Your task to perform on an android device: toggle pop-ups in chrome Image 0: 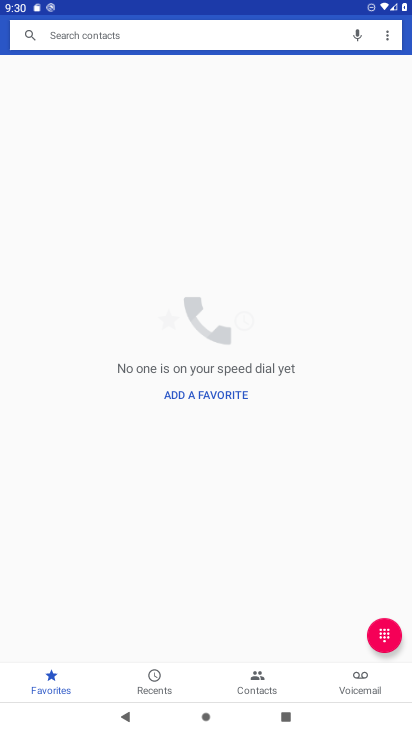
Step 0: press home button
Your task to perform on an android device: toggle pop-ups in chrome Image 1: 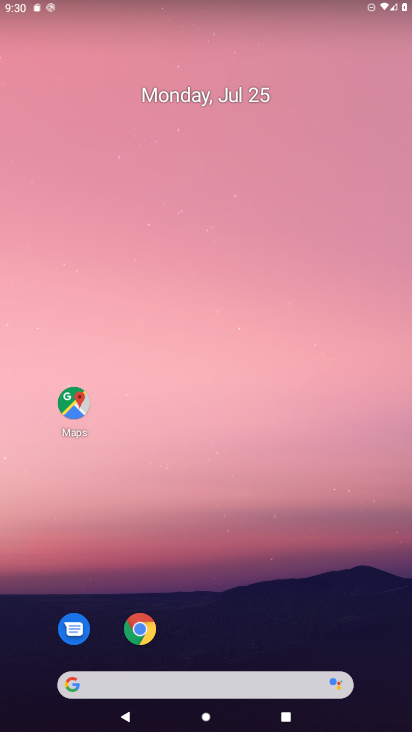
Step 1: click (145, 629)
Your task to perform on an android device: toggle pop-ups in chrome Image 2: 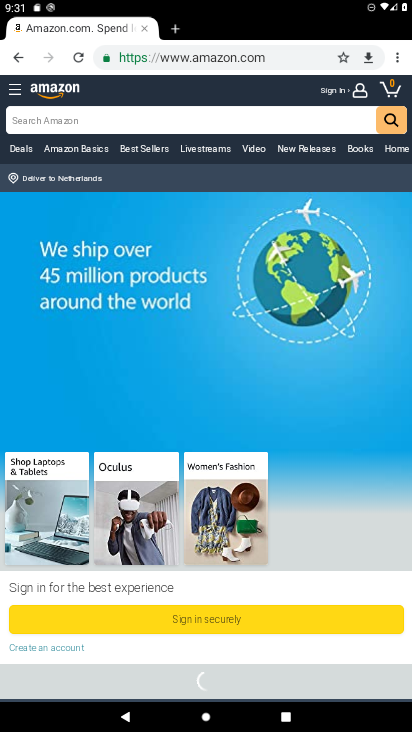
Step 2: drag from (400, 49) to (299, 387)
Your task to perform on an android device: toggle pop-ups in chrome Image 3: 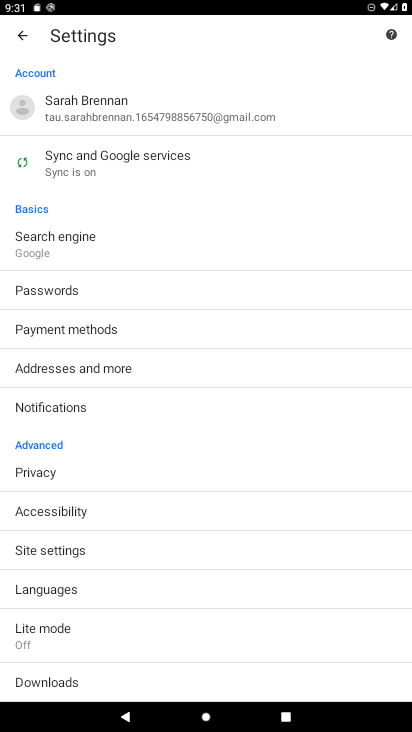
Step 3: click (39, 554)
Your task to perform on an android device: toggle pop-ups in chrome Image 4: 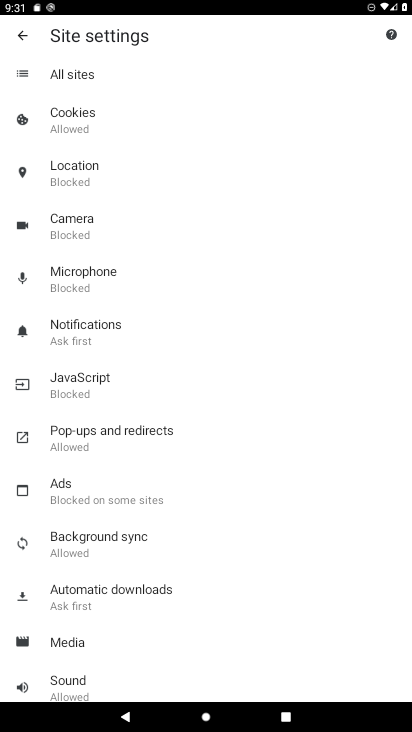
Step 4: click (67, 439)
Your task to perform on an android device: toggle pop-ups in chrome Image 5: 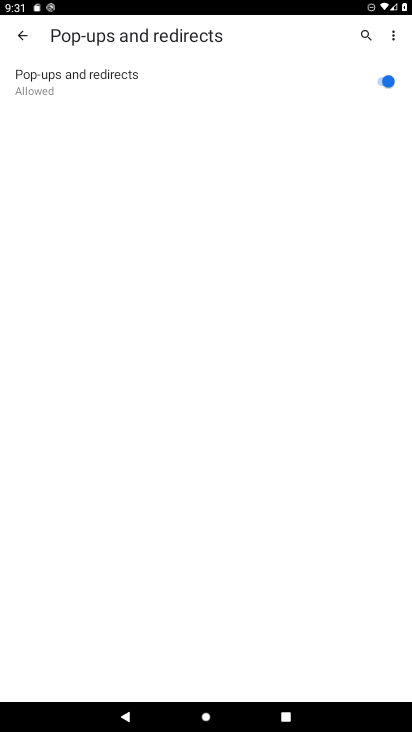
Step 5: click (388, 76)
Your task to perform on an android device: toggle pop-ups in chrome Image 6: 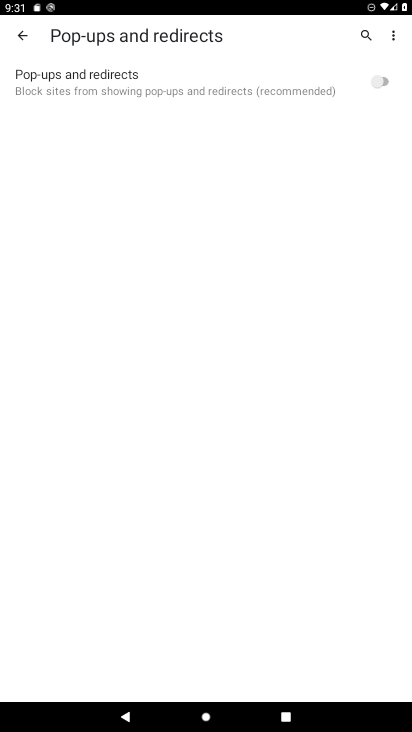
Step 6: task complete